Your task to perform on an android device: turn on wifi Image 0: 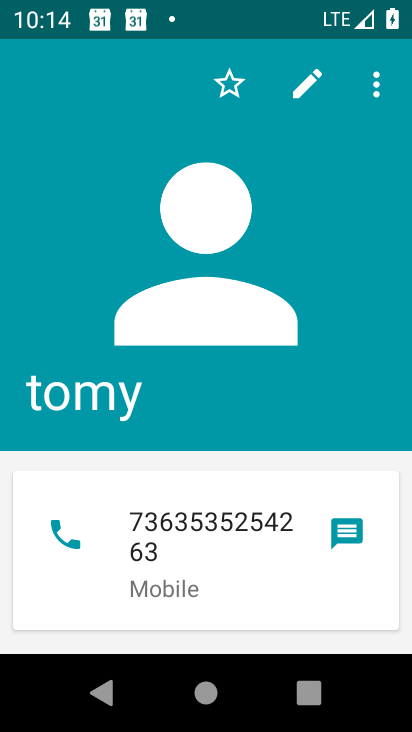
Step 0: press home button
Your task to perform on an android device: turn on wifi Image 1: 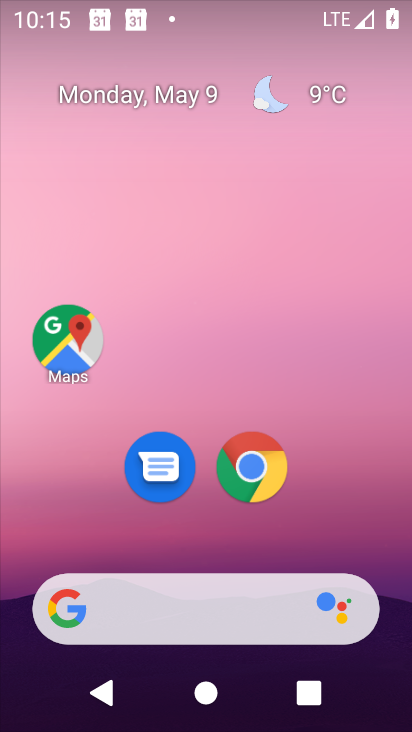
Step 1: drag from (340, 512) to (313, 2)
Your task to perform on an android device: turn on wifi Image 2: 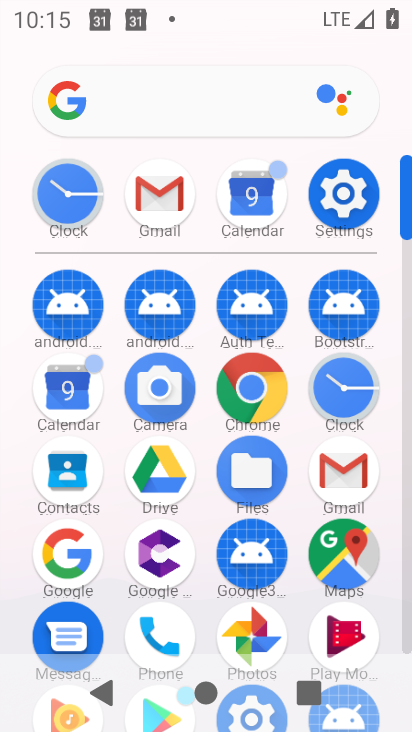
Step 2: click (356, 211)
Your task to perform on an android device: turn on wifi Image 3: 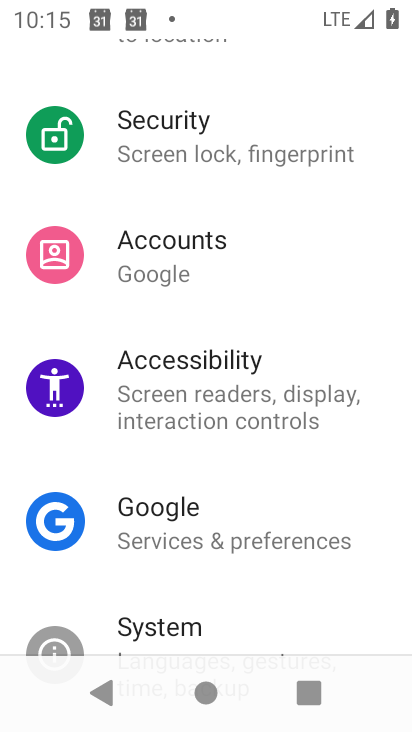
Step 3: drag from (375, 122) to (411, 655)
Your task to perform on an android device: turn on wifi Image 4: 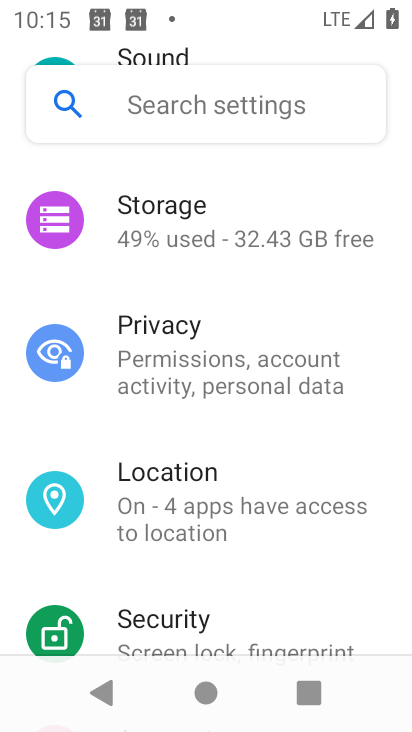
Step 4: drag from (354, 201) to (394, 631)
Your task to perform on an android device: turn on wifi Image 5: 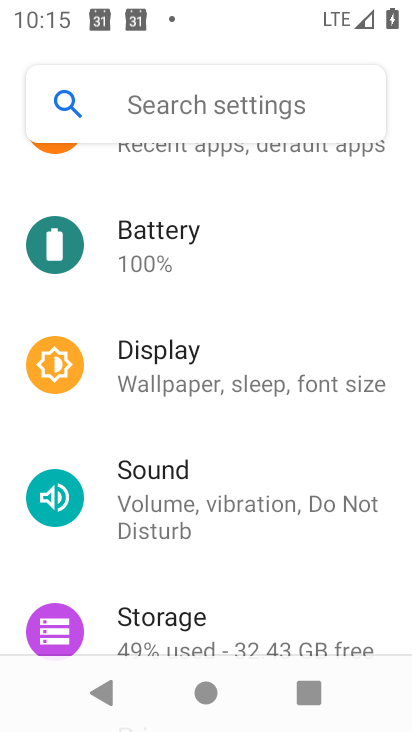
Step 5: drag from (348, 283) to (348, 599)
Your task to perform on an android device: turn on wifi Image 6: 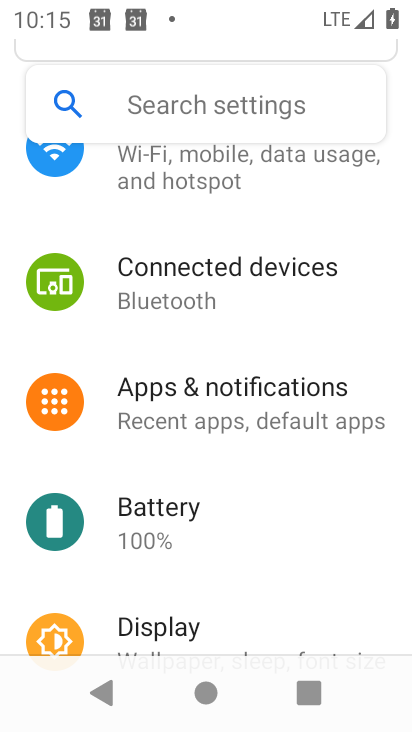
Step 6: drag from (339, 228) to (345, 457)
Your task to perform on an android device: turn on wifi Image 7: 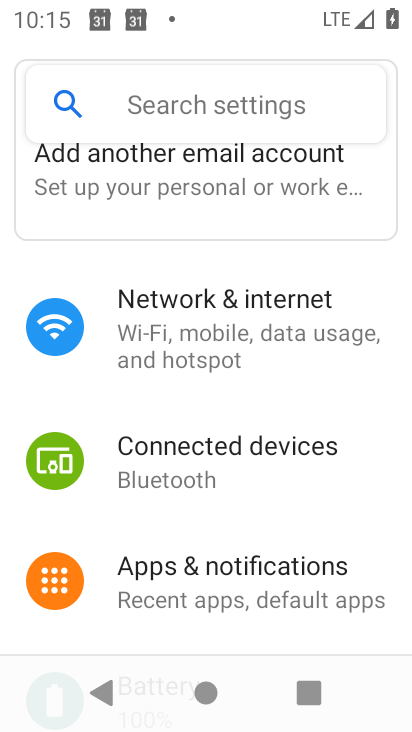
Step 7: click (186, 352)
Your task to perform on an android device: turn on wifi Image 8: 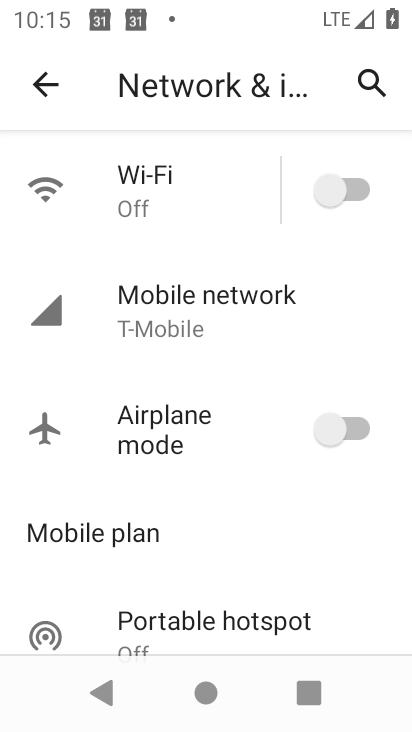
Step 8: click (340, 195)
Your task to perform on an android device: turn on wifi Image 9: 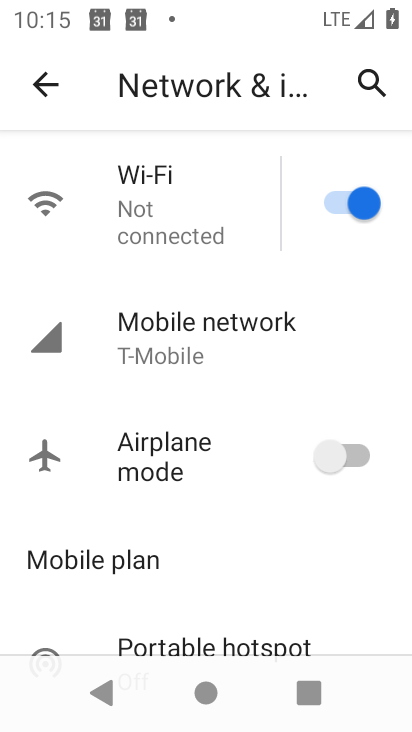
Step 9: task complete